Your task to perform on an android device: Go to Yahoo.com Image 0: 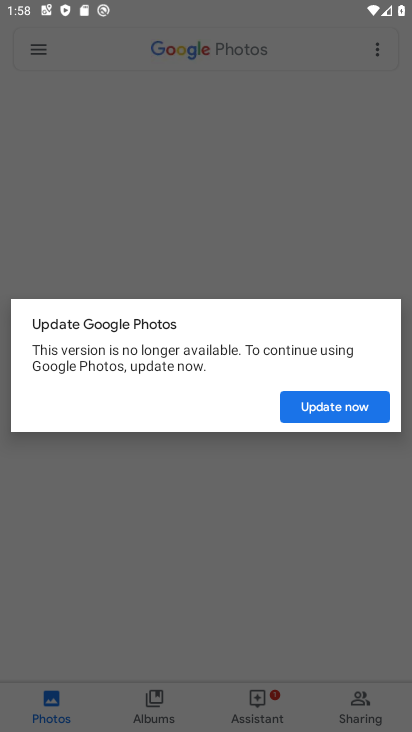
Step 0: press home button
Your task to perform on an android device: Go to Yahoo.com Image 1: 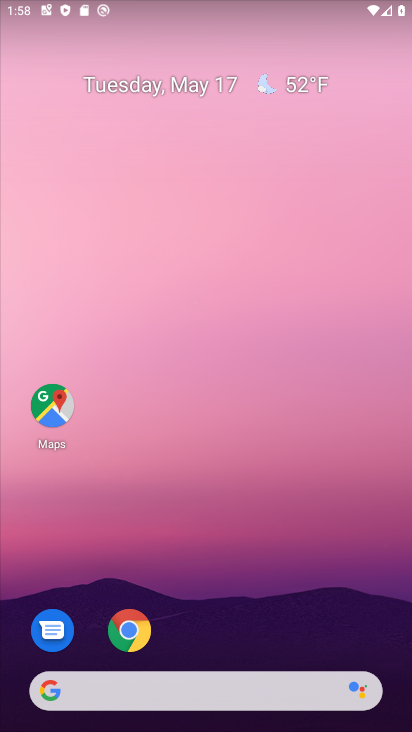
Step 1: click (131, 635)
Your task to perform on an android device: Go to Yahoo.com Image 2: 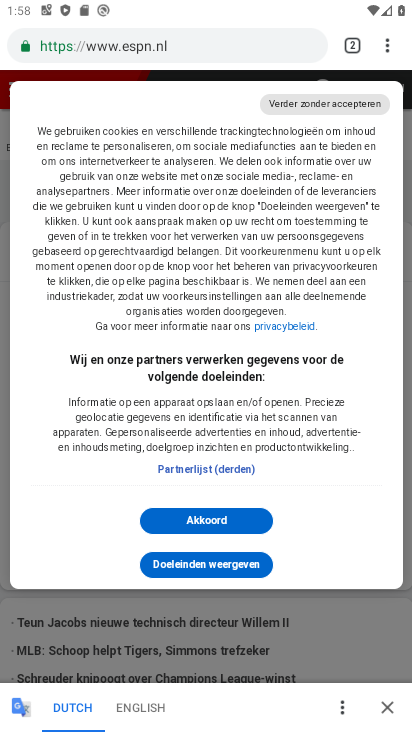
Step 2: click (355, 47)
Your task to perform on an android device: Go to Yahoo.com Image 3: 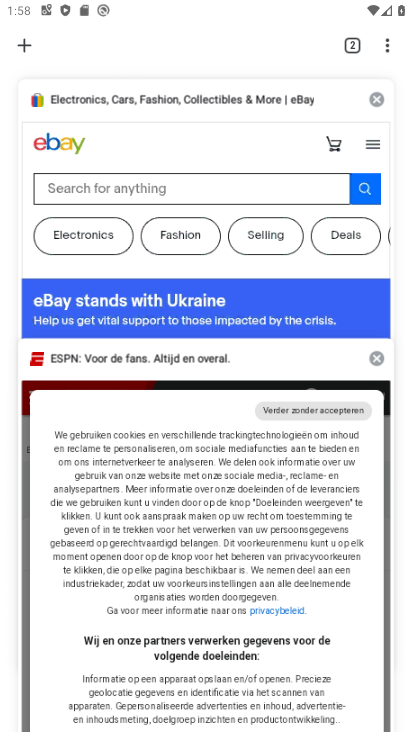
Step 3: click (26, 41)
Your task to perform on an android device: Go to Yahoo.com Image 4: 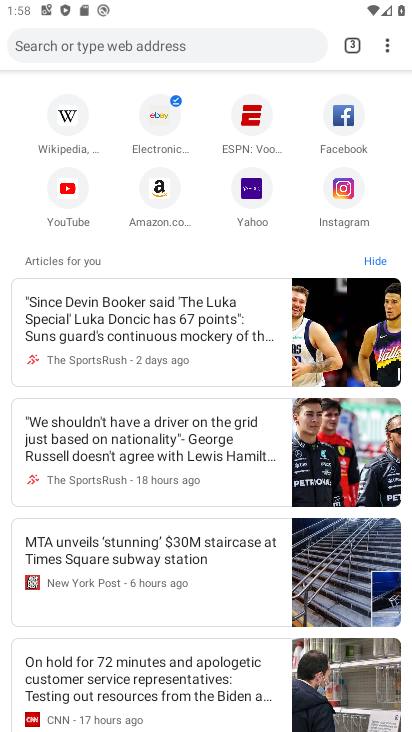
Step 4: click (250, 201)
Your task to perform on an android device: Go to Yahoo.com Image 5: 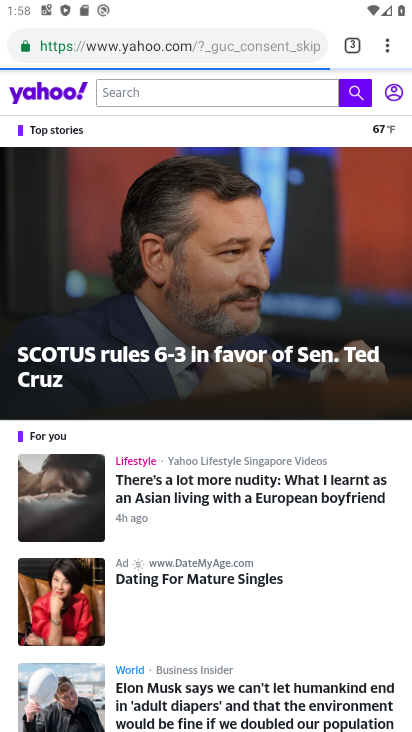
Step 5: task complete